Your task to perform on an android device: Add razer nari to the cart on costco Image 0: 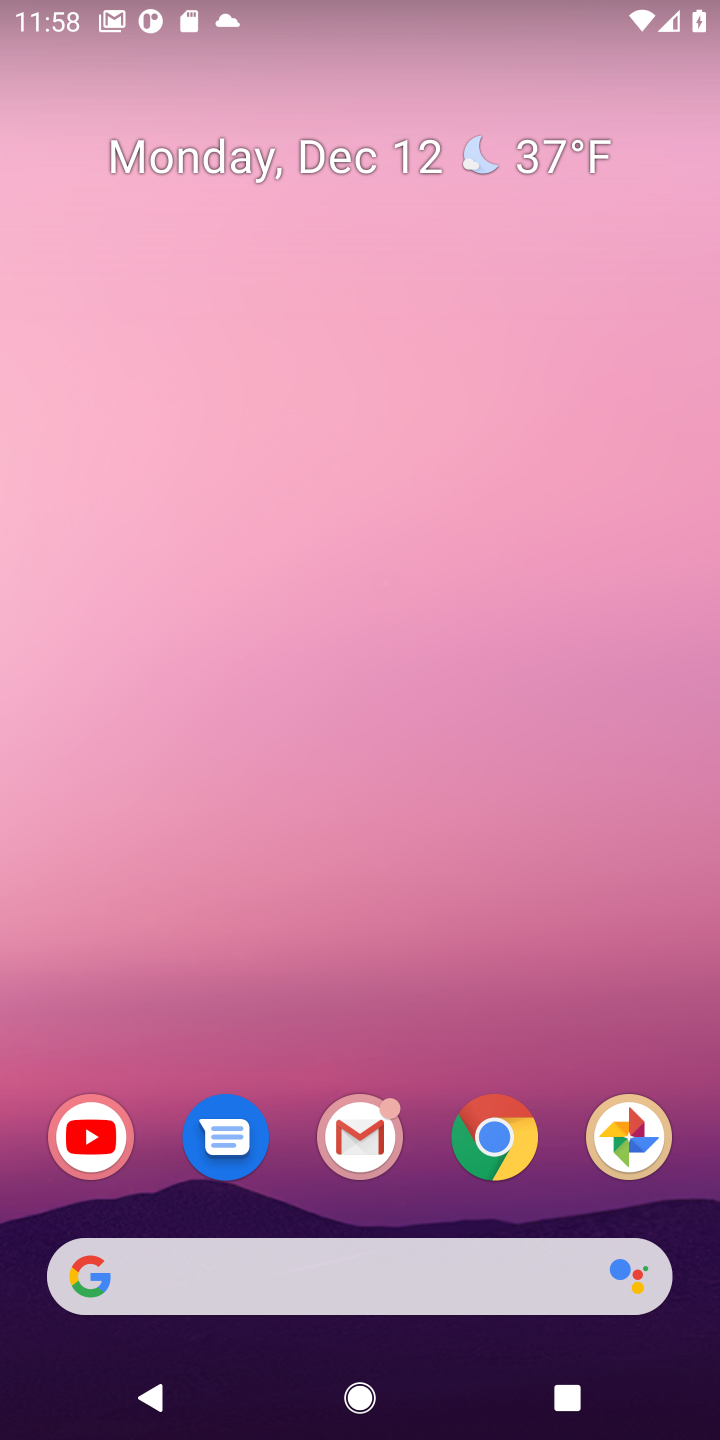
Step 0: click (424, 1304)
Your task to perform on an android device: Add razer nari to the cart on costco Image 1: 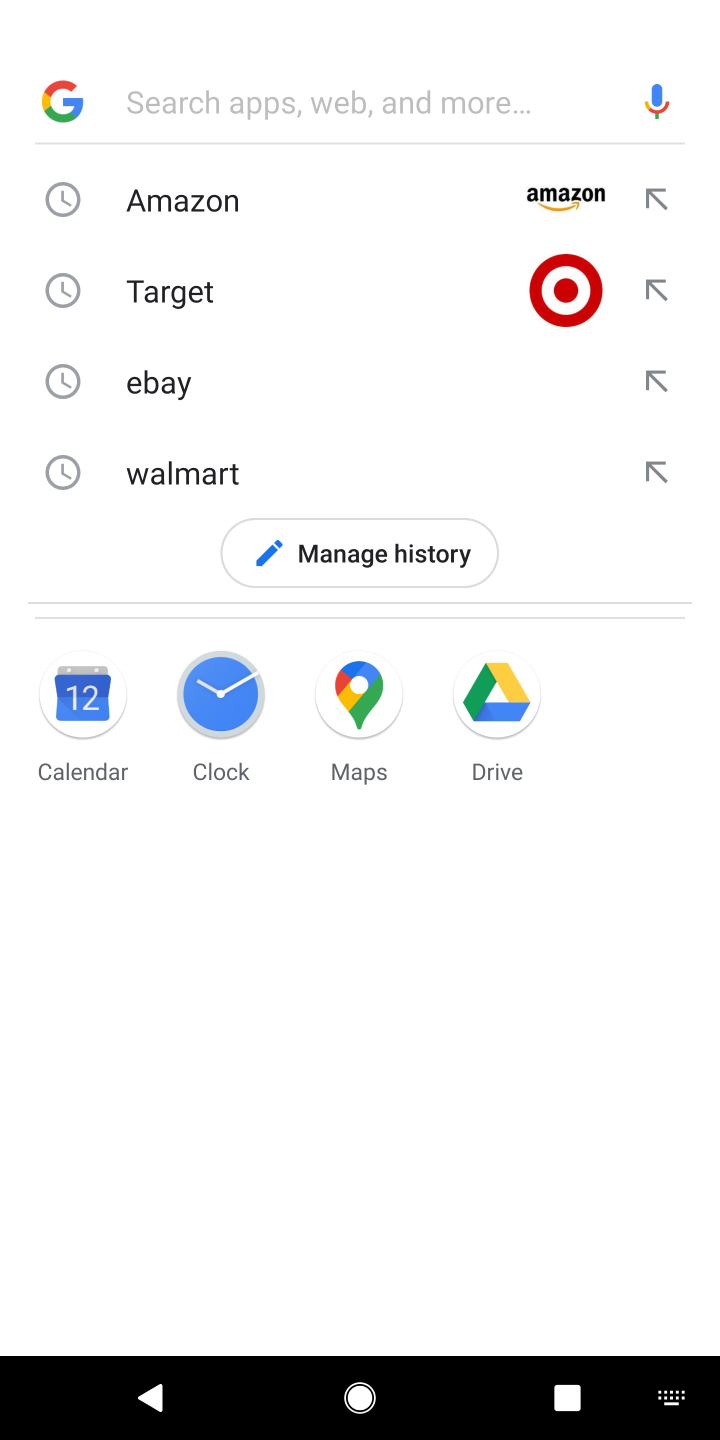
Step 1: type "costco"
Your task to perform on an android device: Add razer nari to the cart on costco Image 2: 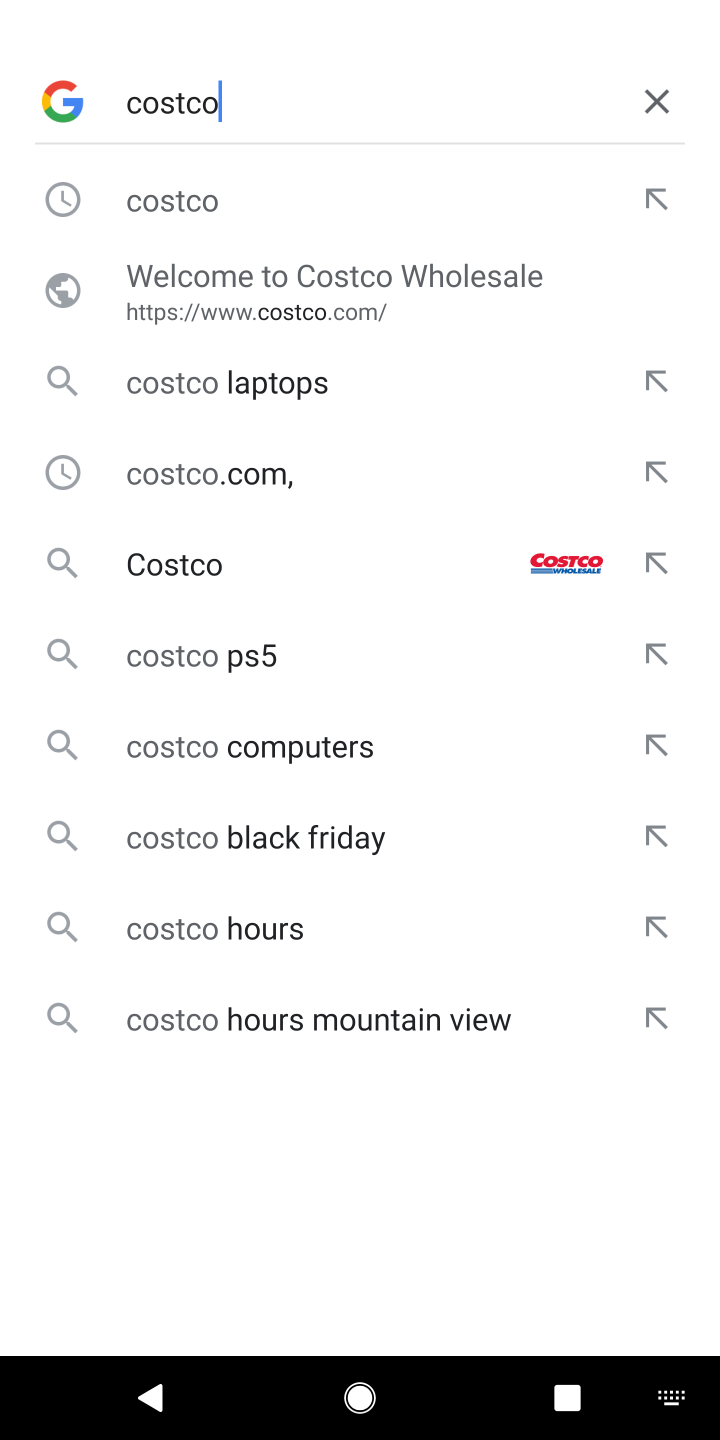
Step 2: click (284, 582)
Your task to perform on an android device: Add razer nari to the cart on costco Image 3: 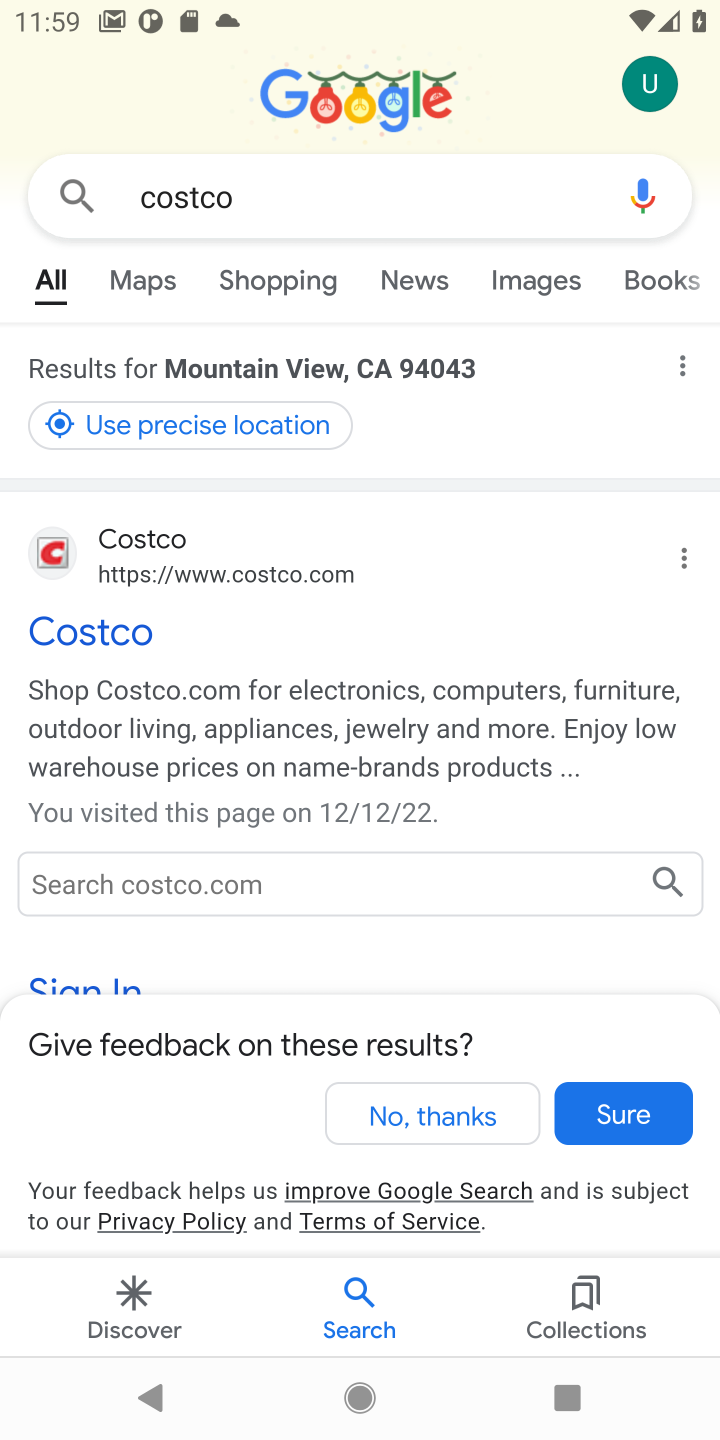
Step 3: click (99, 560)
Your task to perform on an android device: Add razer nari to the cart on costco Image 4: 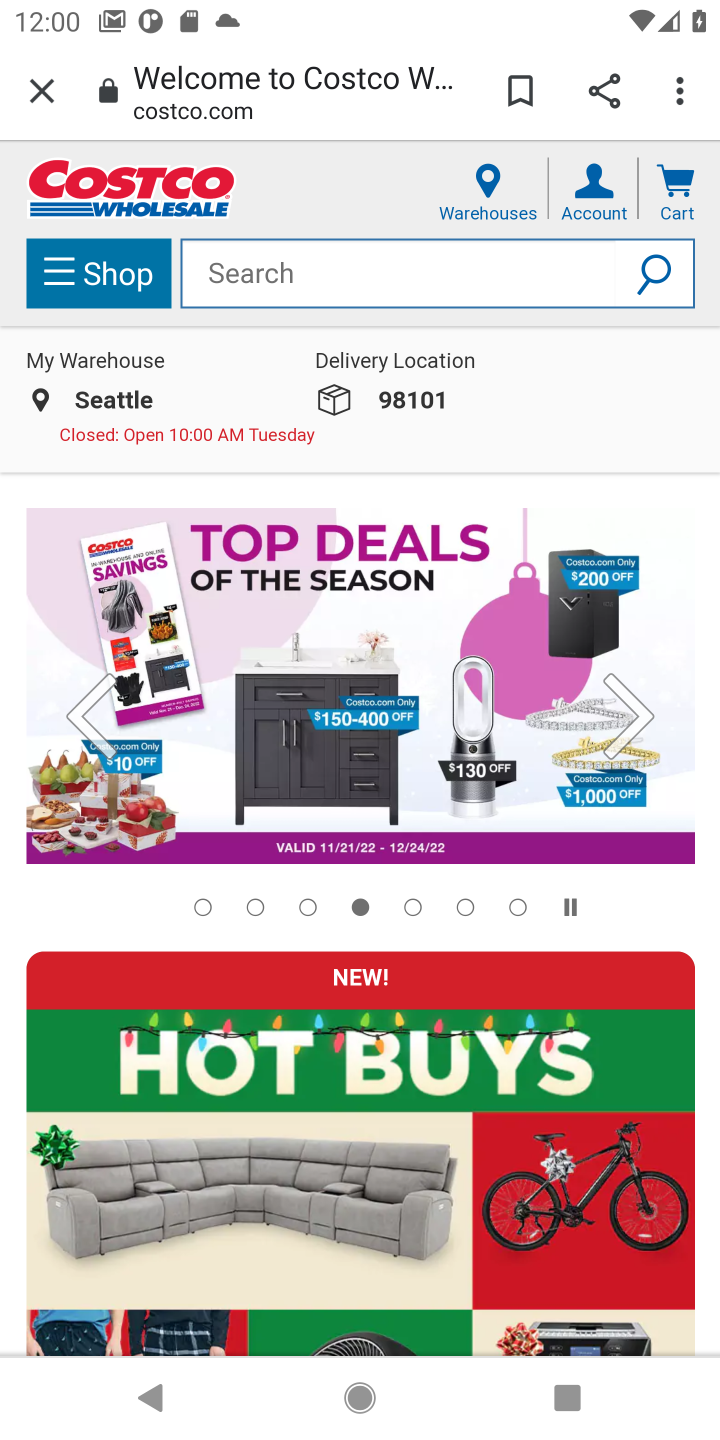
Step 4: click (300, 289)
Your task to perform on an android device: Add razer nari to the cart on costco Image 5: 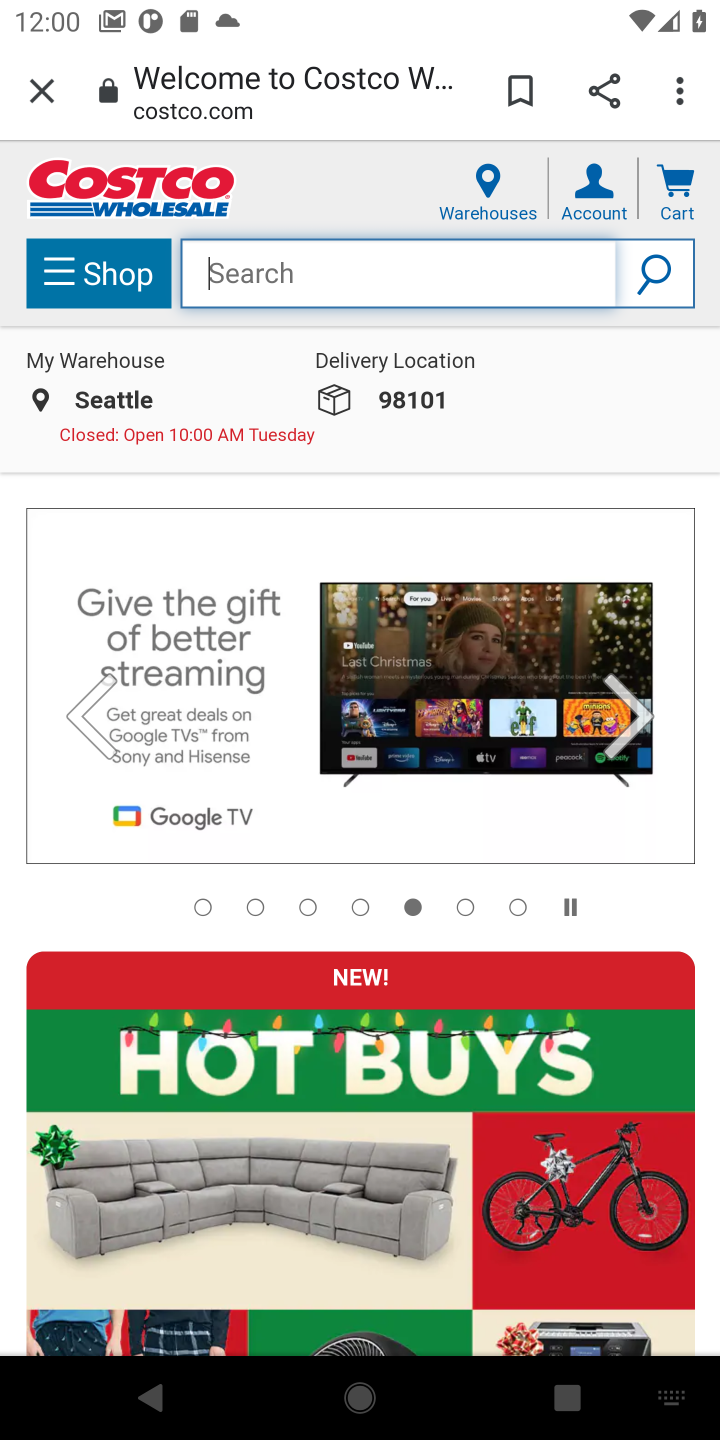
Step 5: type "razer nari"
Your task to perform on an android device: Add razer nari to the cart on costco Image 6: 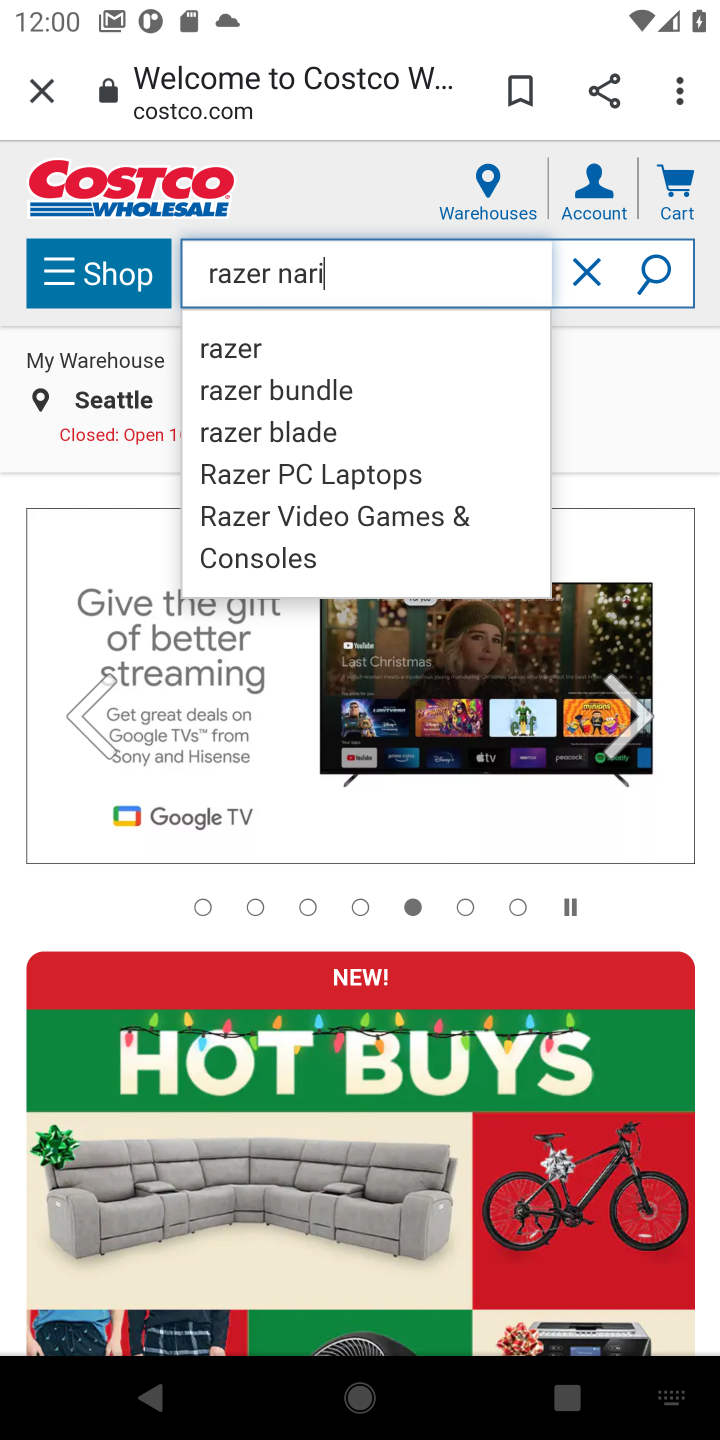
Step 6: click (644, 294)
Your task to perform on an android device: Add razer nari to the cart on costco Image 7: 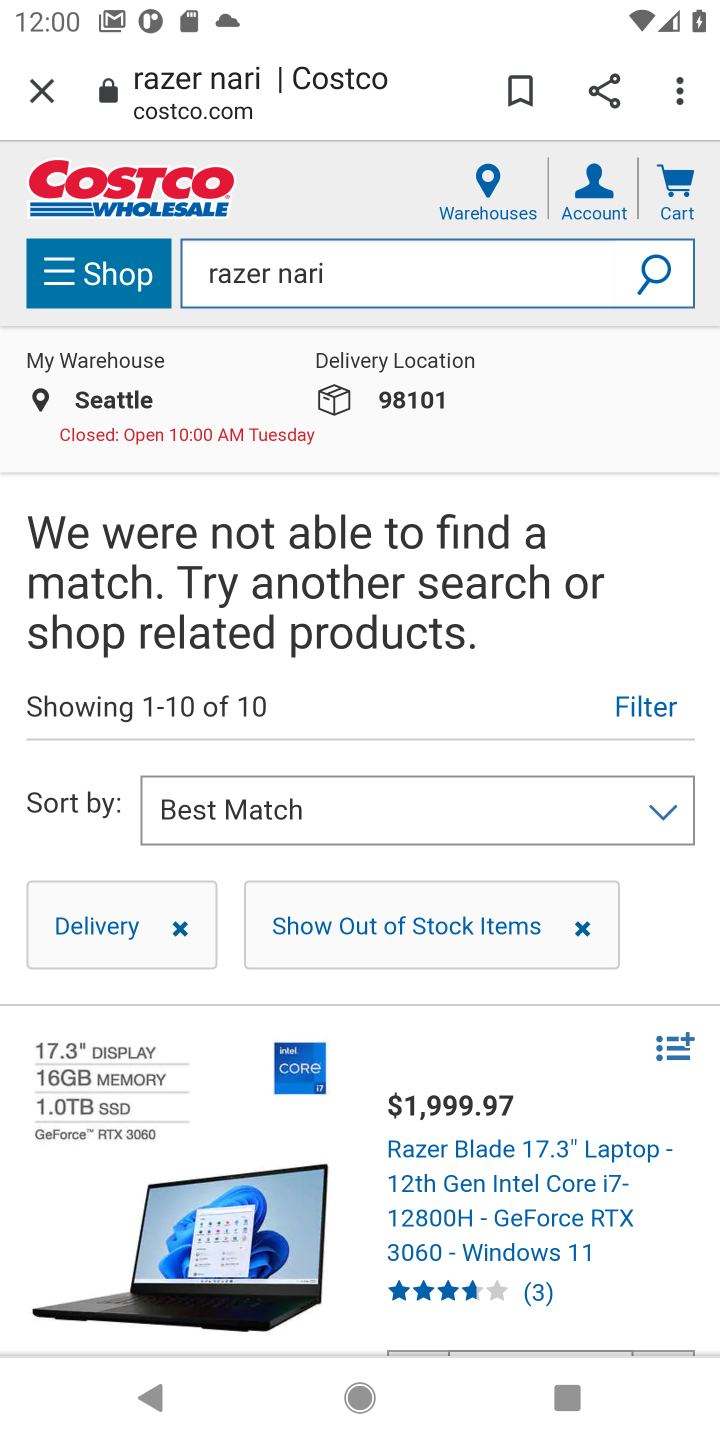
Step 7: click (528, 1244)
Your task to perform on an android device: Add razer nari to the cart on costco Image 8: 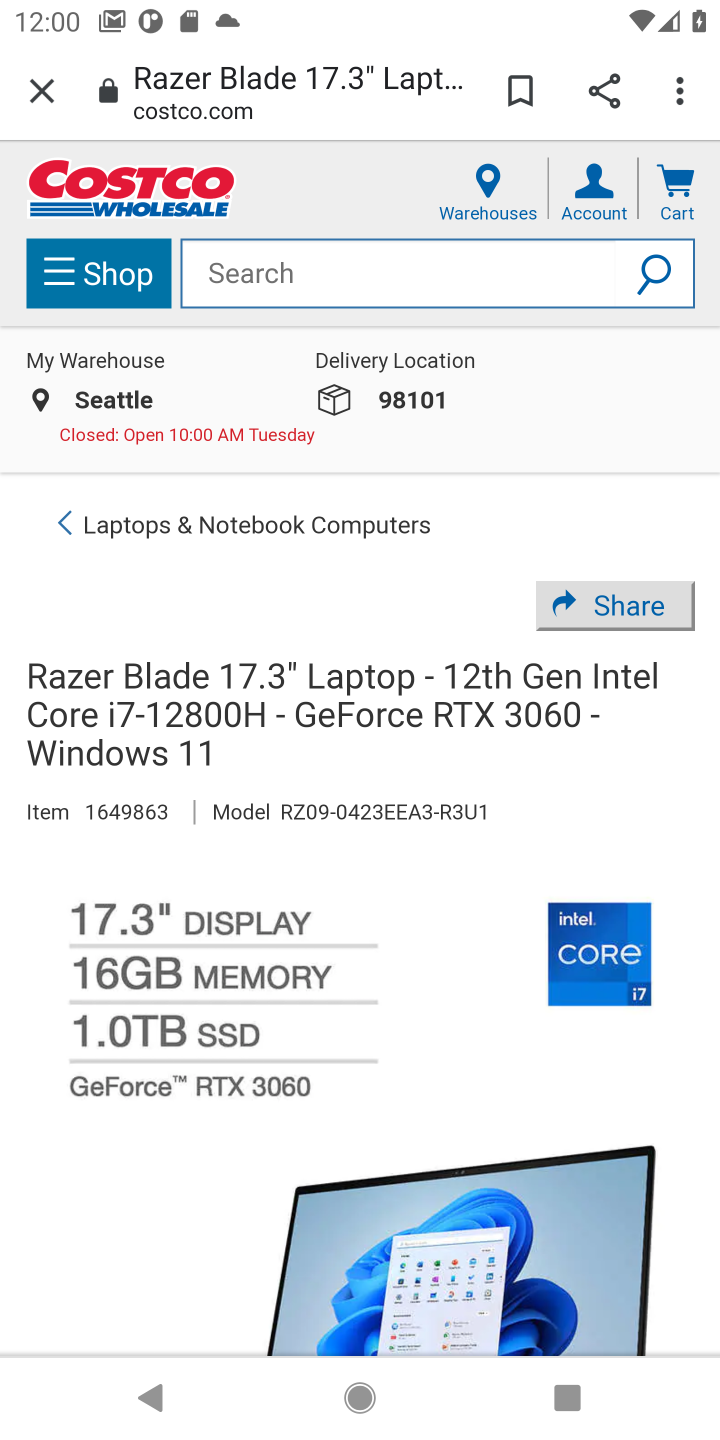
Step 8: drag from (314, 1251) to (349, 517)
Your task to perform on an android device: Add razer nari to the cart on costco Image 9: 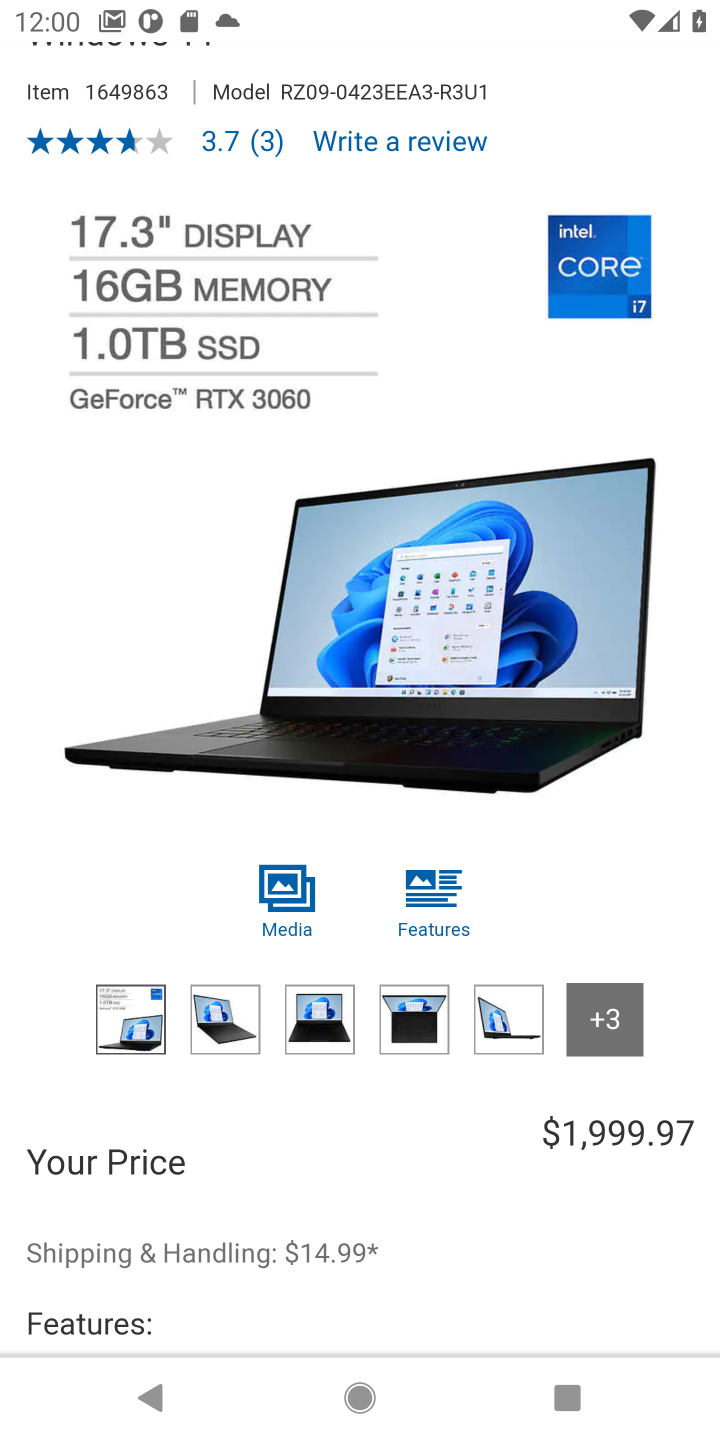
Step 9: drag from (448, 1147) to (485, 343)
Your task to perform on an android device: Add razer nari to the cart on costco Image 10: 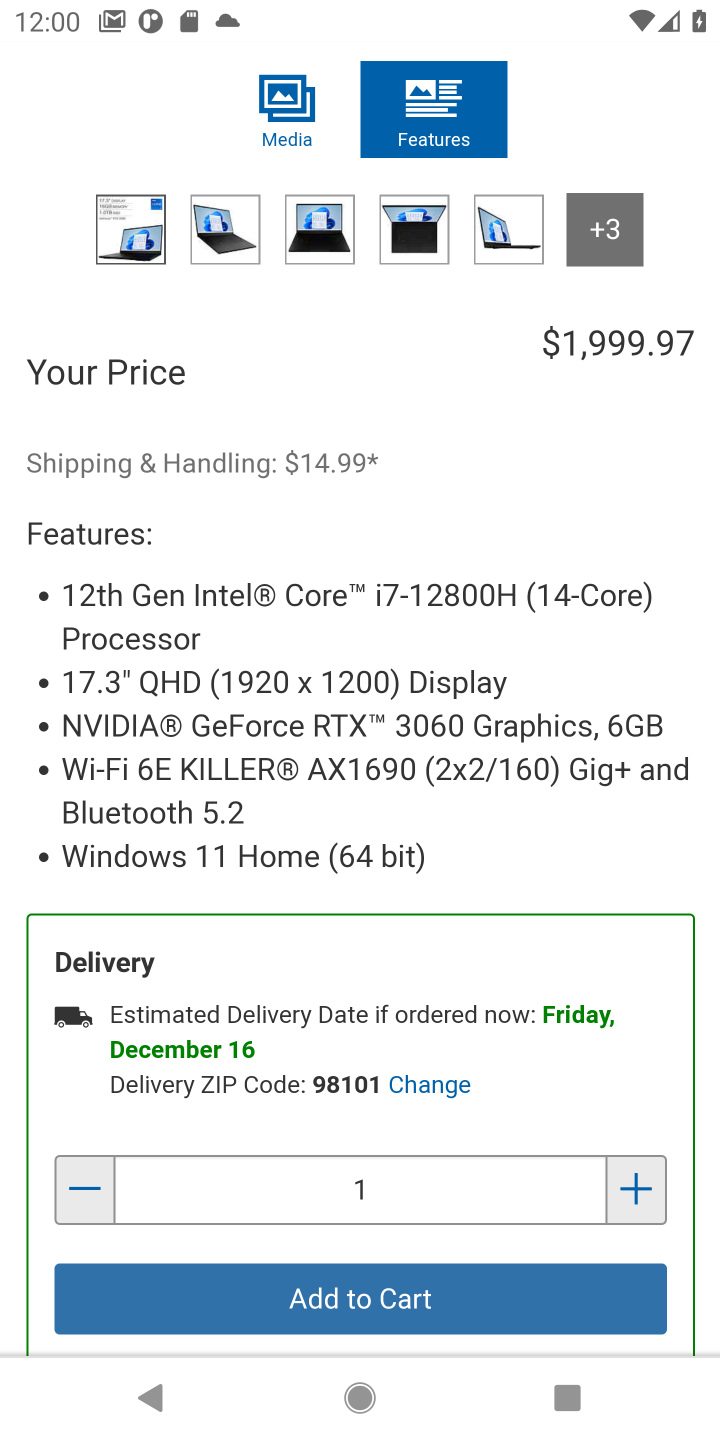
Step 10: click (426, 1299)
Your task to perform on an android device: Add razer nari to the cart on costco Image 11: 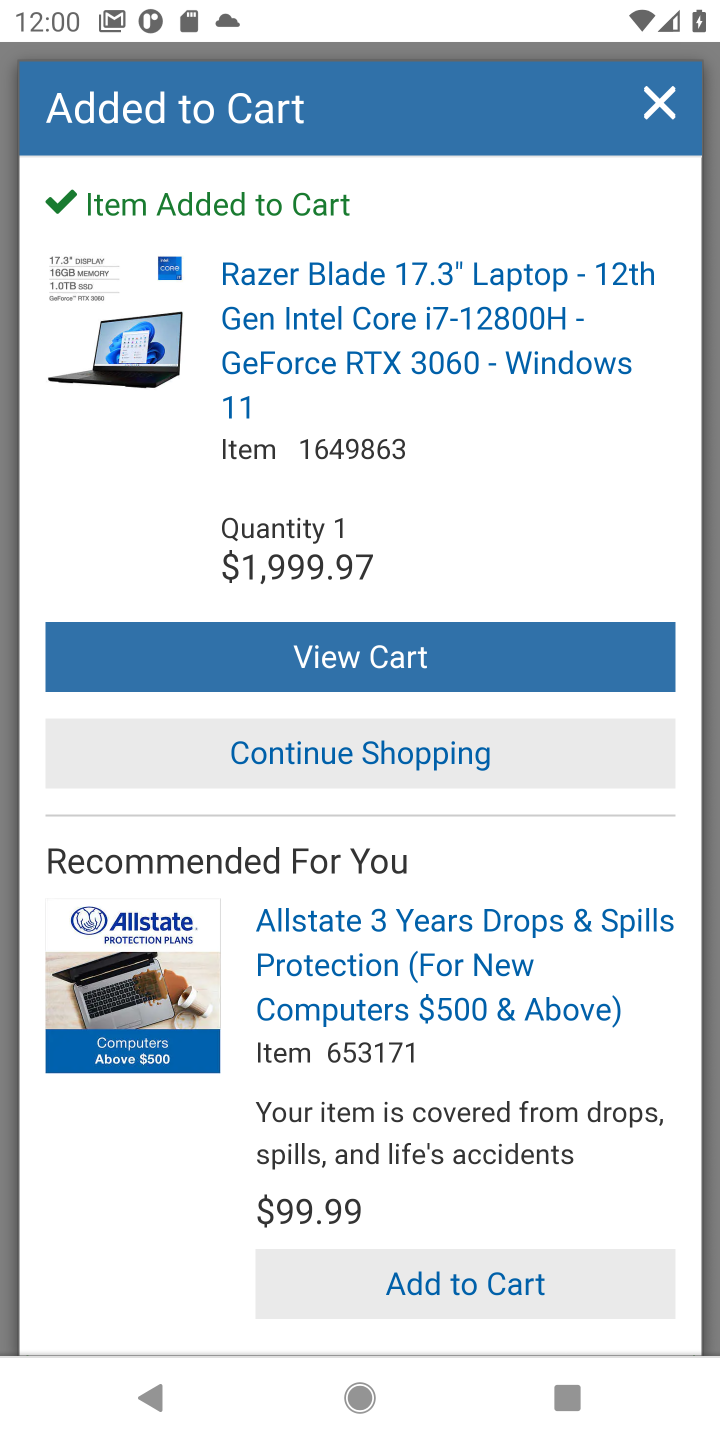
Step 11: task complete